Your task to perform on an android device: show emergency info Image 0: 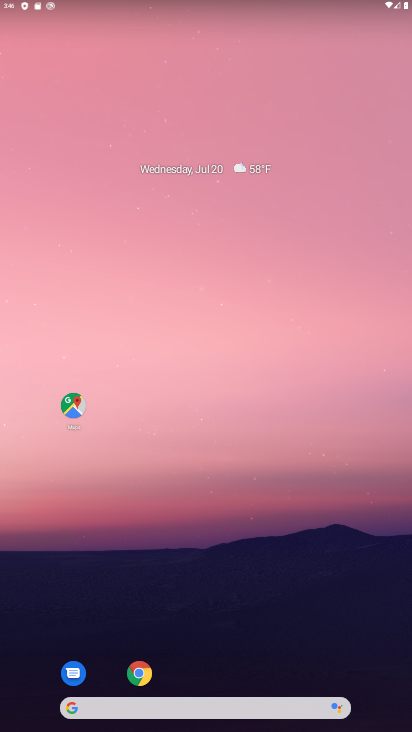
Step 0: drag from (344, 665) to (231, 0)
Your task to perform on an android device: show emergency info Image 1: 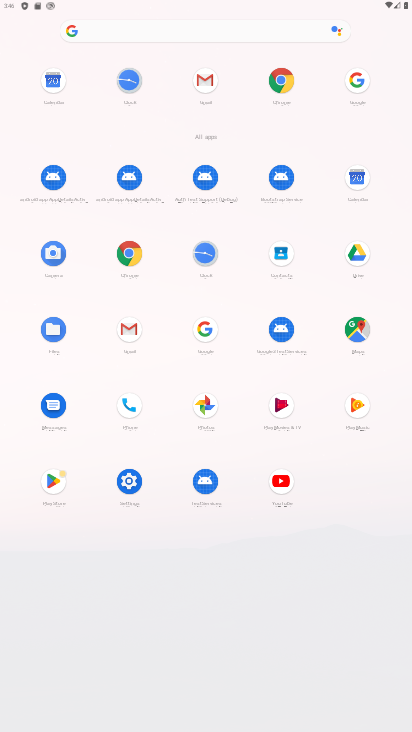
Step 1: click (123, 499)
Your task to perform on an android device: show emergency info Image 2: 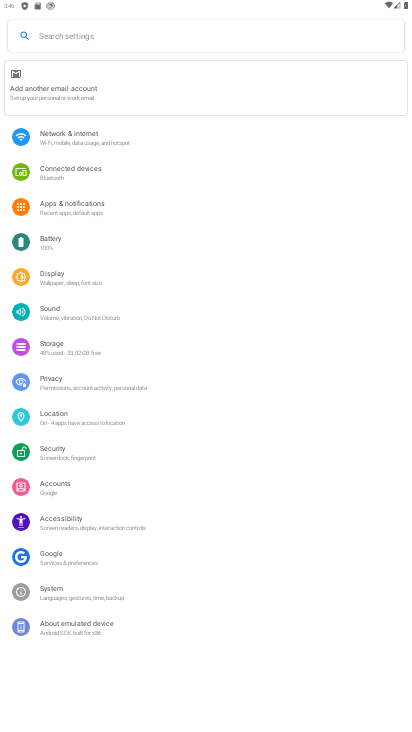
Step 2: click (138, 634)
Your task to perform on an android device: show emergency info Image 3: 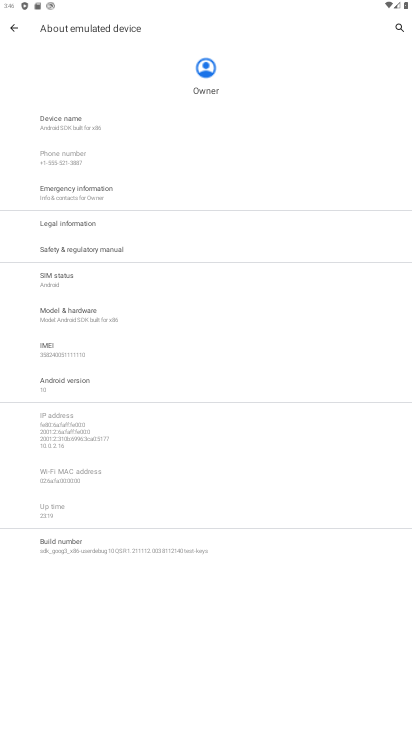
Step 3: click (113, 182)
Your task to perform on an android device: show emergency info Image 4: 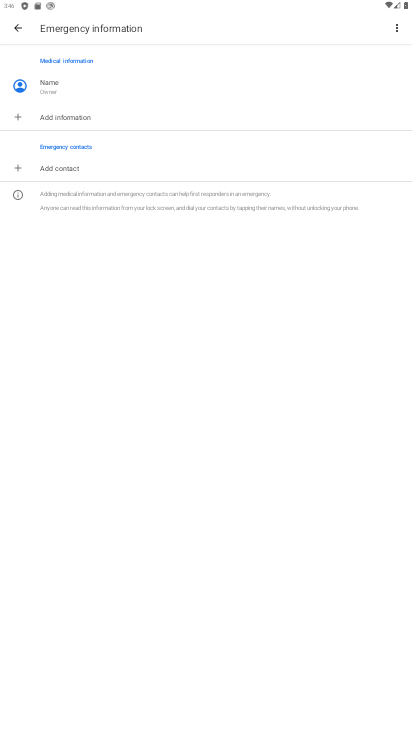
Step 4: task complete